Your task to perform on an android device: empty trash in google photos Image 0: 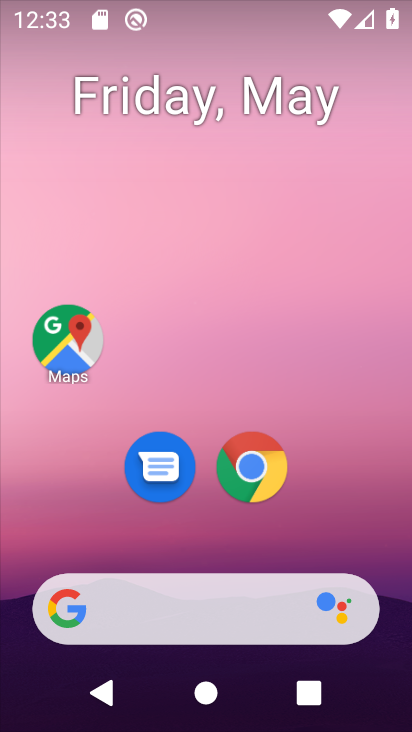
Step 0: drag from (307, 523) to (276, 4)
Your task to perform on an android device: empty trash in google photos Image 1: 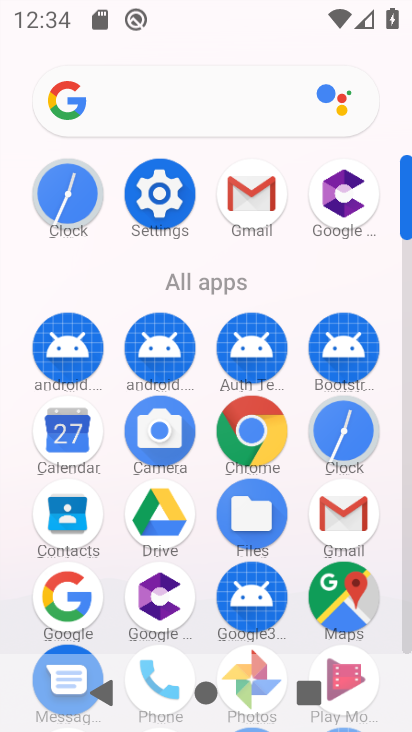
Step 1: drag from (390, 525) to (381, 72)
Your task to perform on an android device: empty trash in google photos Image 2: 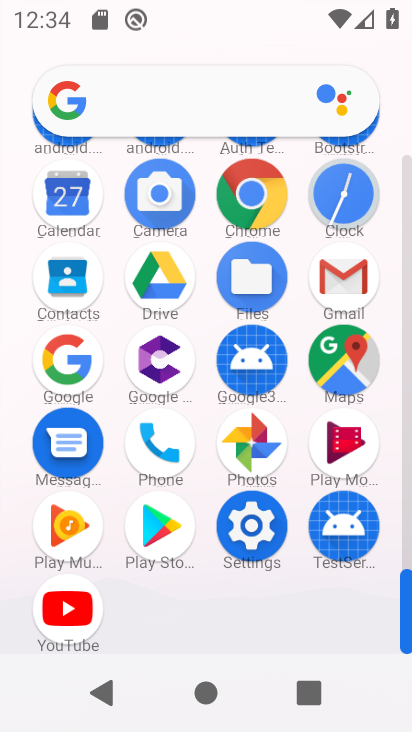
Step 2: click (268, 450)
Your task to perform on an android device: empty trash in google photos Image 3: 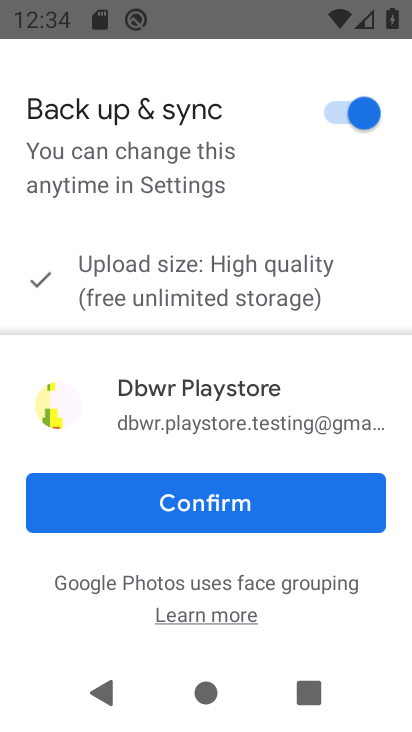
Step 3: click (240, 492)
Your task to perform on an android device: empty trash in google photos Image 4: 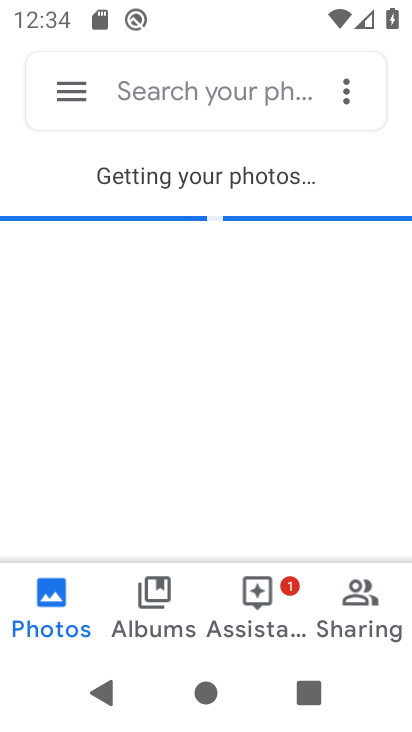
Step 4: click (69, 113)
Your task to perform on an android device: empty trash in google photos Image 5: 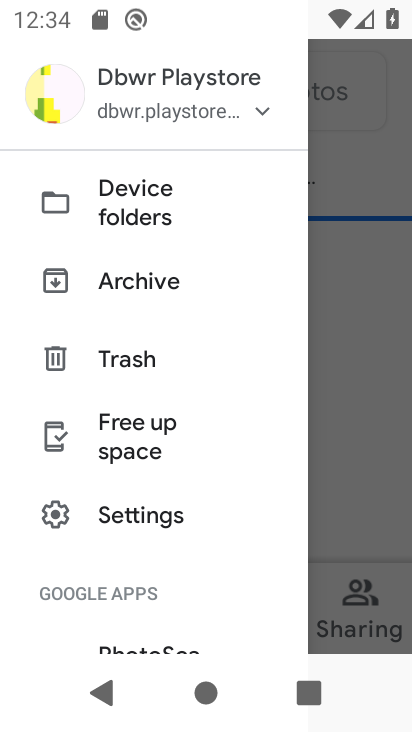
Step 5: click (132, 362)
Your task to perform on an android device: empty trash in google photos Image 6: 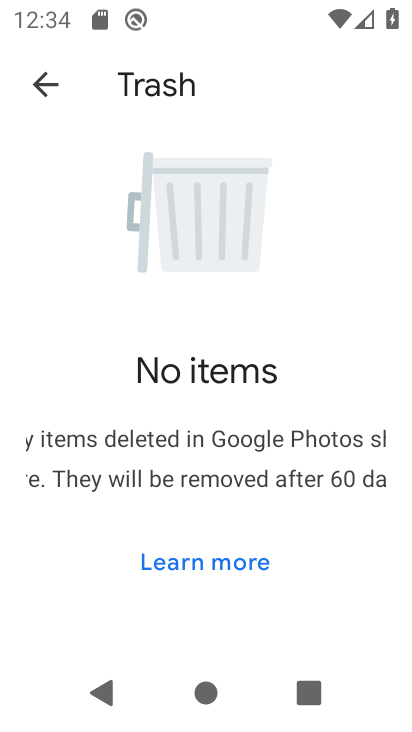
Step 6: task complete